Your task to perform on an android device: change the clock display to analog Image 0: 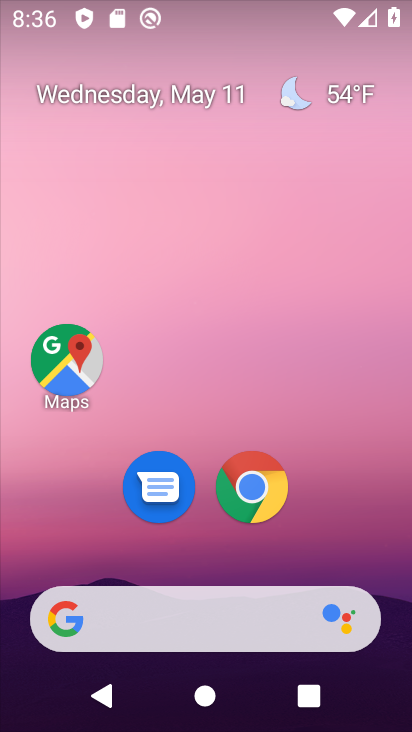
Step 0: drag from (88, 575) to (234, 123)
Your task to perform on an android device: change the clock display to analog Image 1: 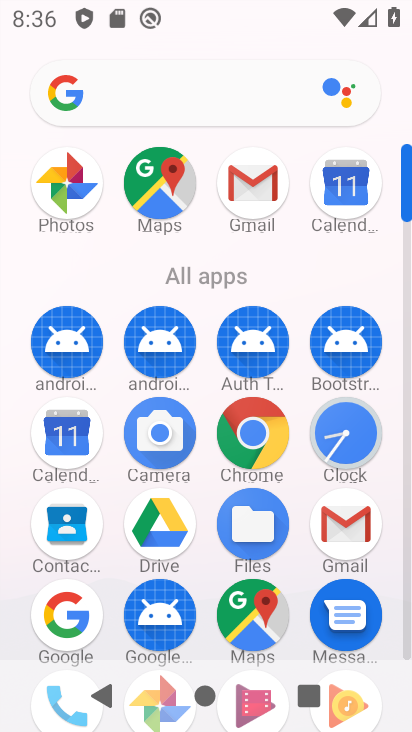
Step 1: click (341, 459)
Your task to perform on an android device: change the clock display to analog Image 2: 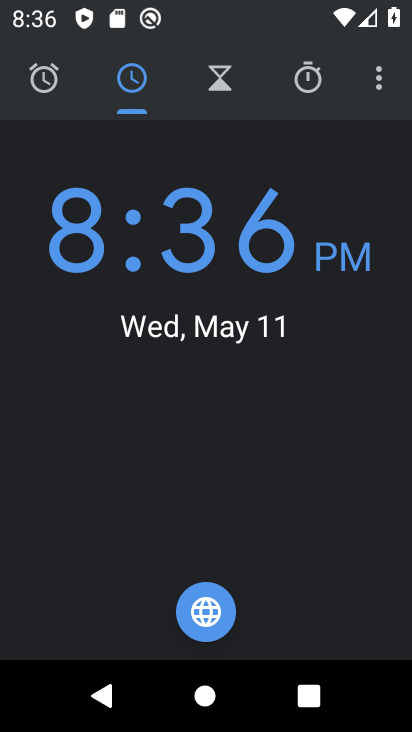
Step 2: click (384, 82)
Your task to perform on an android device: change the clock display to analog Image 3: 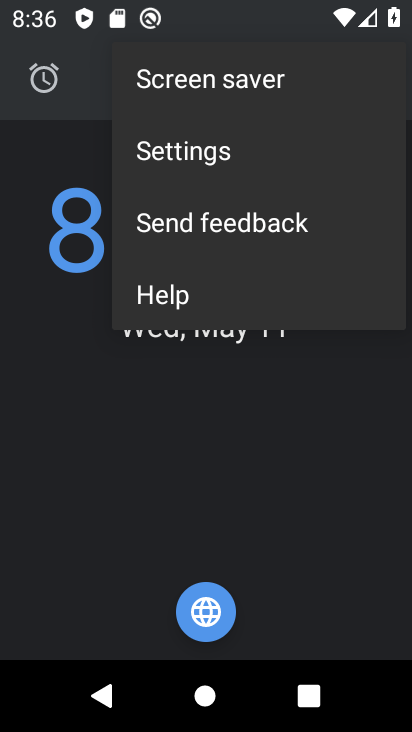
Step 3: click (326, 130)
Your task to perform on an android device: change the clock display to analog Image 4: 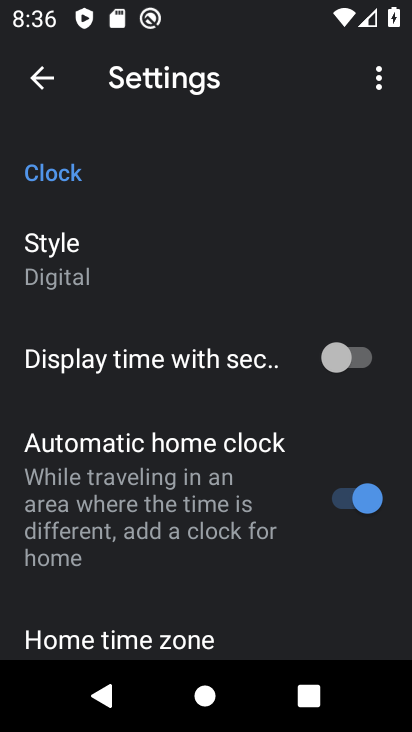
Step 4: click (195, 261)
Your task to perform on an android device: change the clock display to analog Image 5: 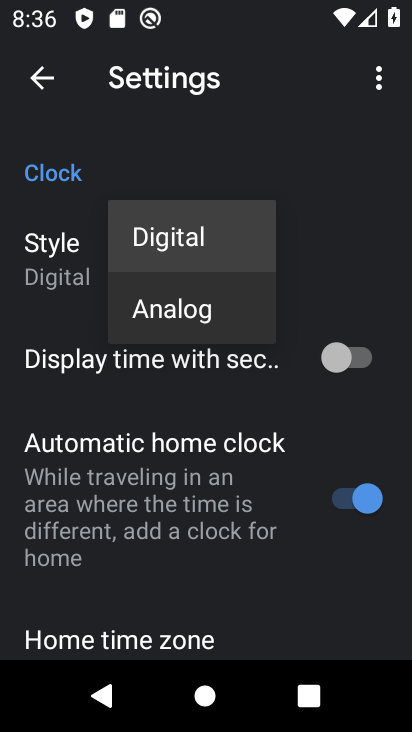
Step 5: click (200, 324)
Your task to perform on an android device: change the clock display to analog Image 6: 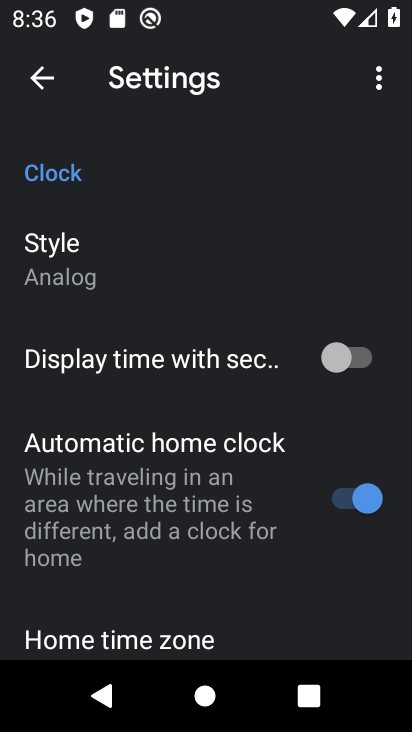
Step 6: task complete